Your task to perform on an android device: Open accessibility settings Image 0: 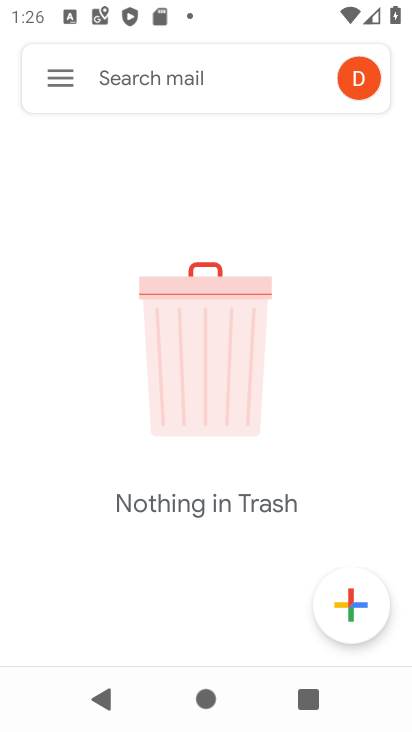
Step 0: press home button
Your task to perform on an android device: Open accessibility settings Image 1: 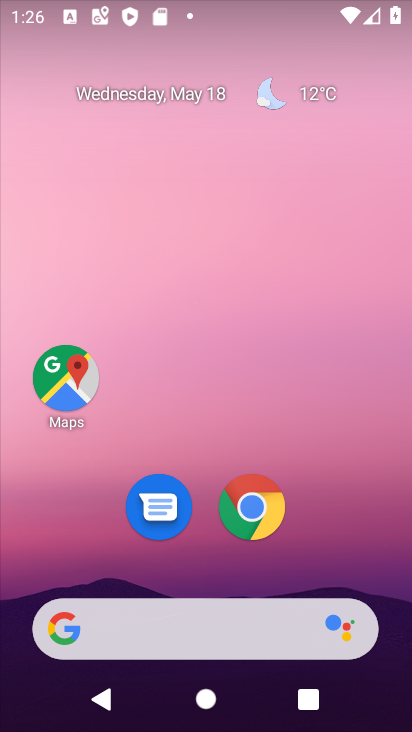
Step 1: drag from (397, 608) to (297, 156)
Your task to perform on an android device: Open accessibility settings Image 2: 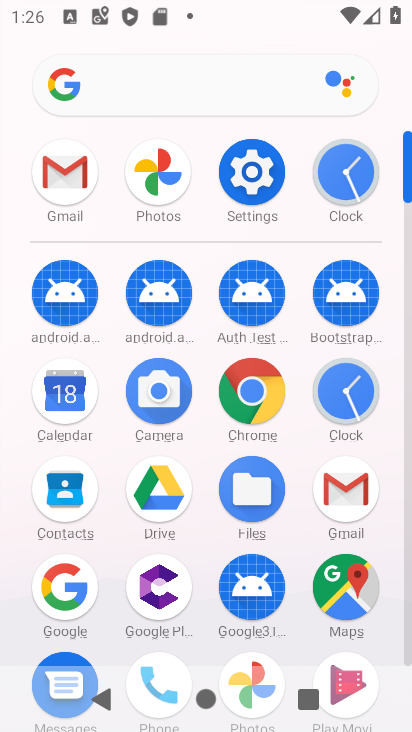
Step 2: click (409, 646)
Your task to perform on an android device: Open accessibility settings Image 3: 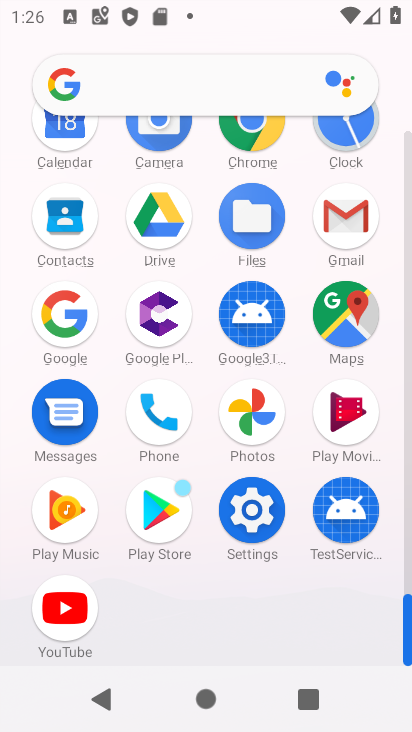
Step 3: click (252, 510)
Your task to perform on an android device: Open accessibility settings Image 4: 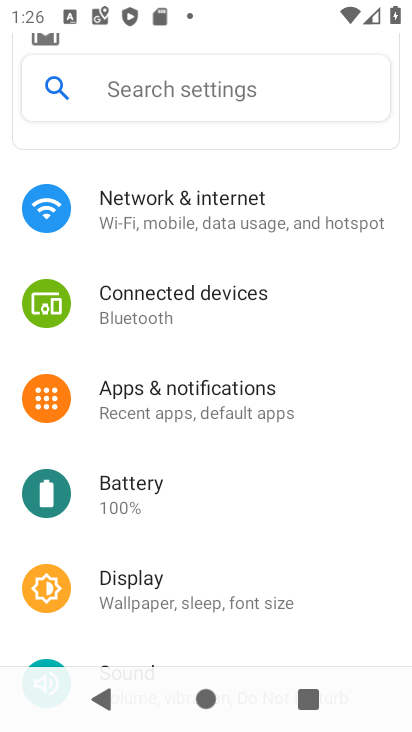
Step 4: drag from (240, 589) to (203, 271)
Your task to perform on an android device: Open accessibility settings Image 5: 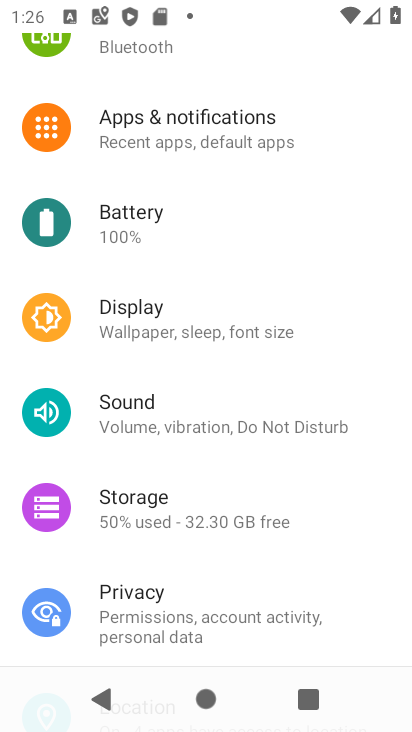
Step 5: drag from (343, 625) to (314, 279)
Your task to perform on an android device: Open accessibility settings Image 6: 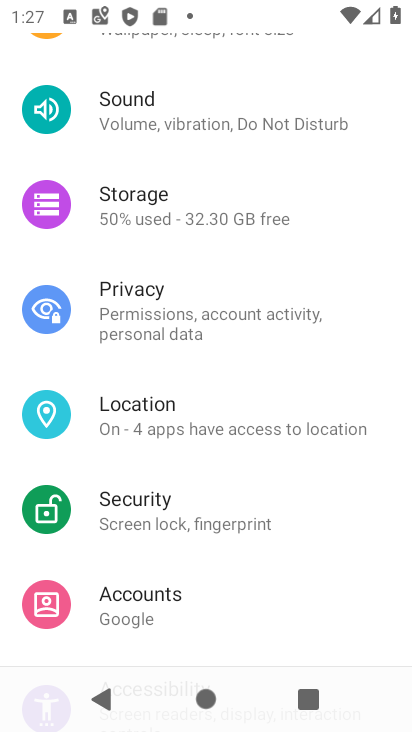
Step 6: drag from (333, 618) to (288, 216)
Your task to perform on an android device: Open accessibility settings Image 7: 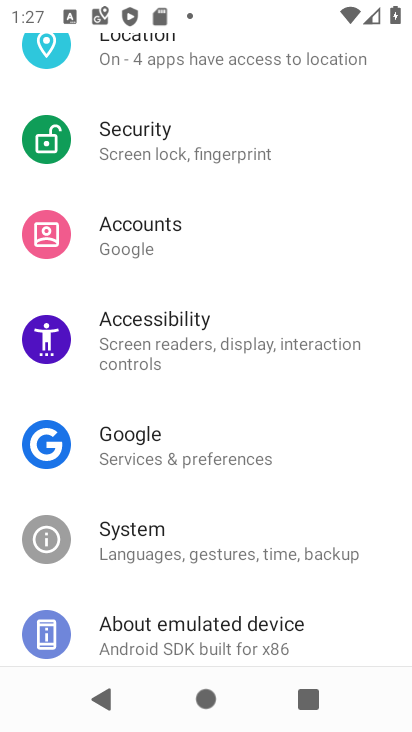
Step 7: click (158, 320)
Your task to perform on an android device: Open accessibility settings Image 8: 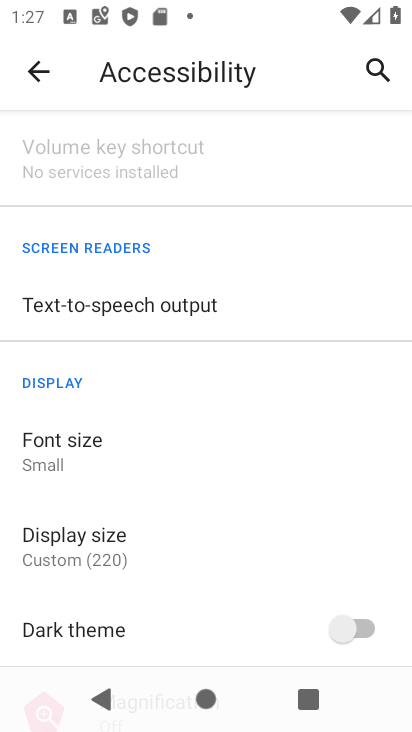
Step 8: task complete